Your task to perform on an android device: Add "bose soundsport free" to the cart on target Image 0: 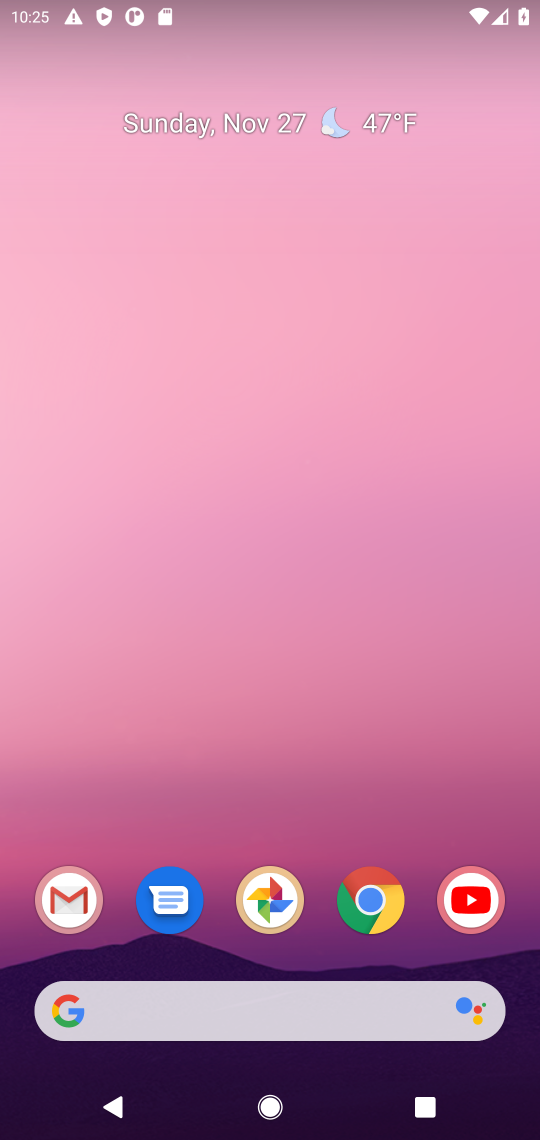
Step 0: click (379, 906)
Your task to perform on an android device: Add "bose soundsport free" to the cart on target Image 1: 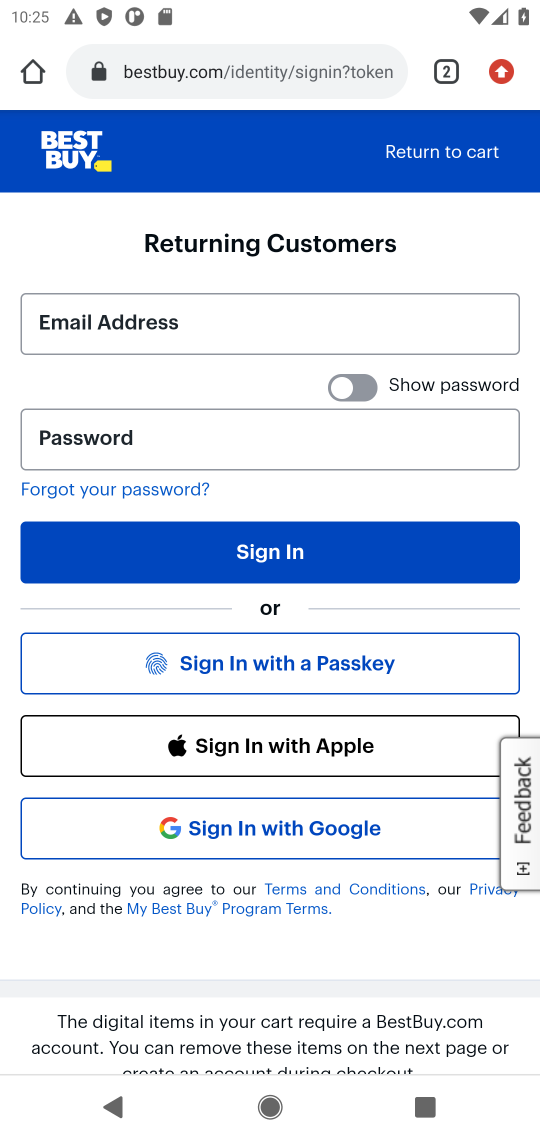
Step 1: click (218, 76)
Your task to perform on an android device: Add "bose soundsport free" to the cart on target Image 2: 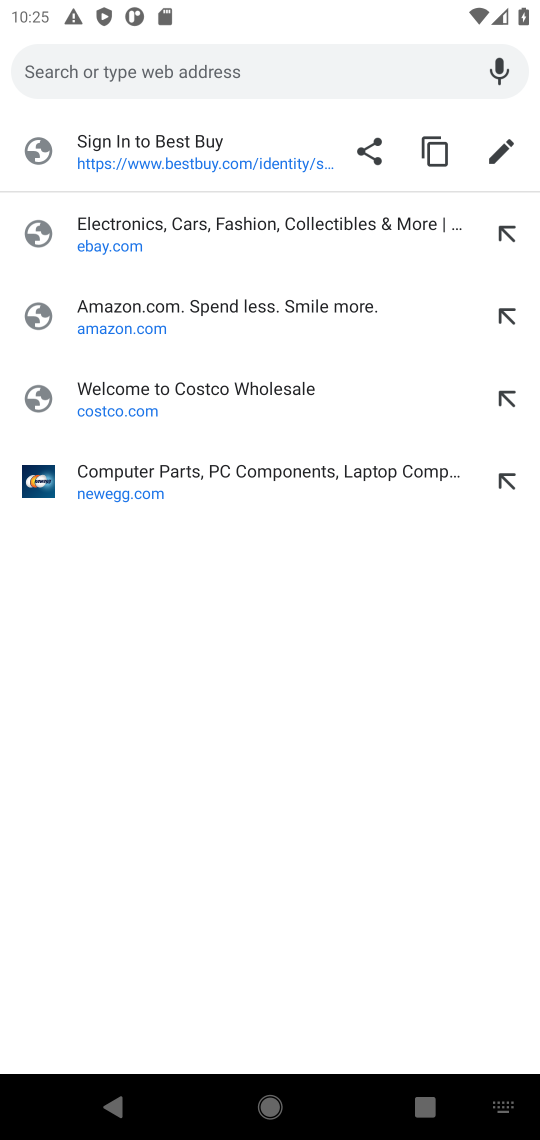
Step 2: type "target.com"
Your task to perform on an android device: Add "bose soundsport free" to the cart on target Image 3: 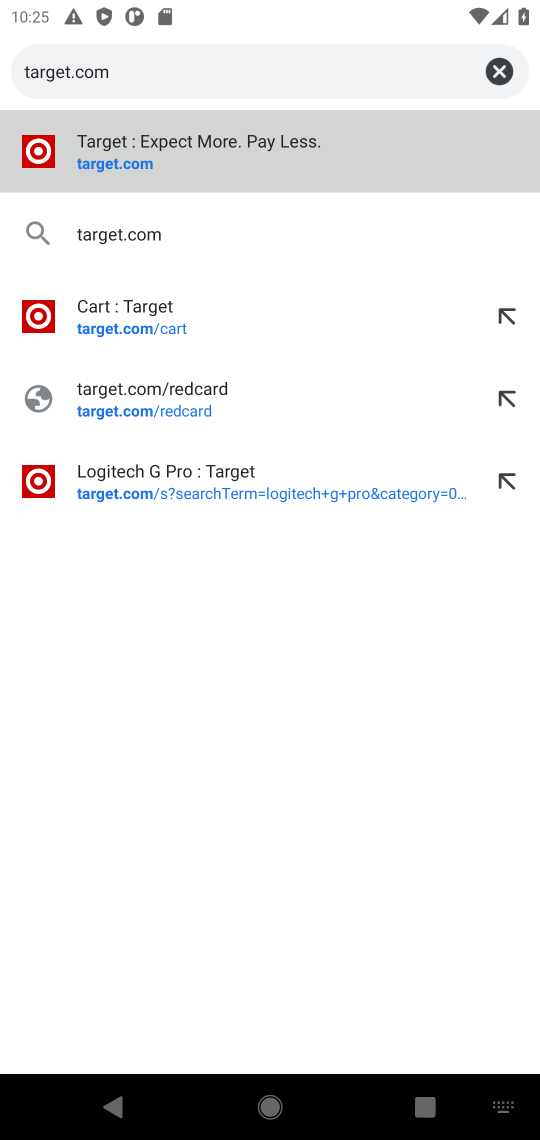
Step 3: click (82, 160)
Your task to perform on an android device: Add "bose soundsport free" to the cart on target Image 4: 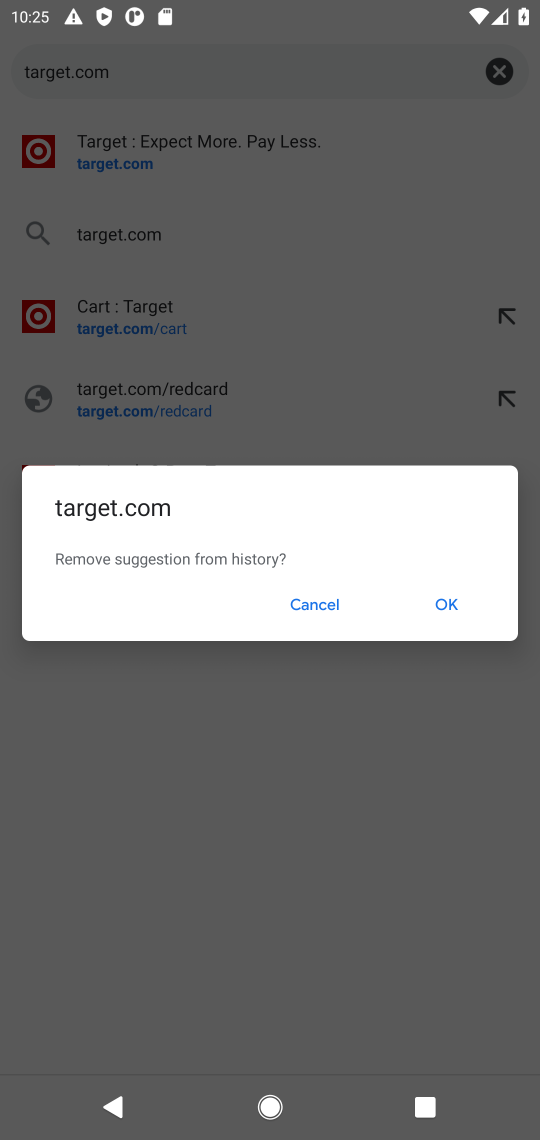
Step 4: click (306, 607)
Your task to perform on an android device: Add "bose soundsport free" to the cart on target Image 5: 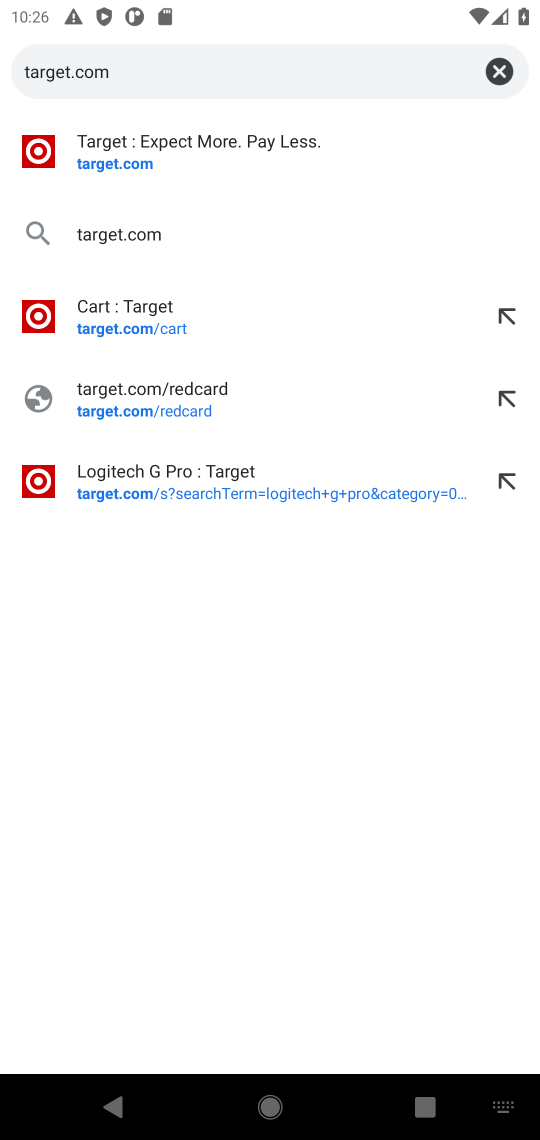
Step 5: click (111, 152)
Your task to perform on an android device: Add "bose soundsport free" to the cart on target Image 6: 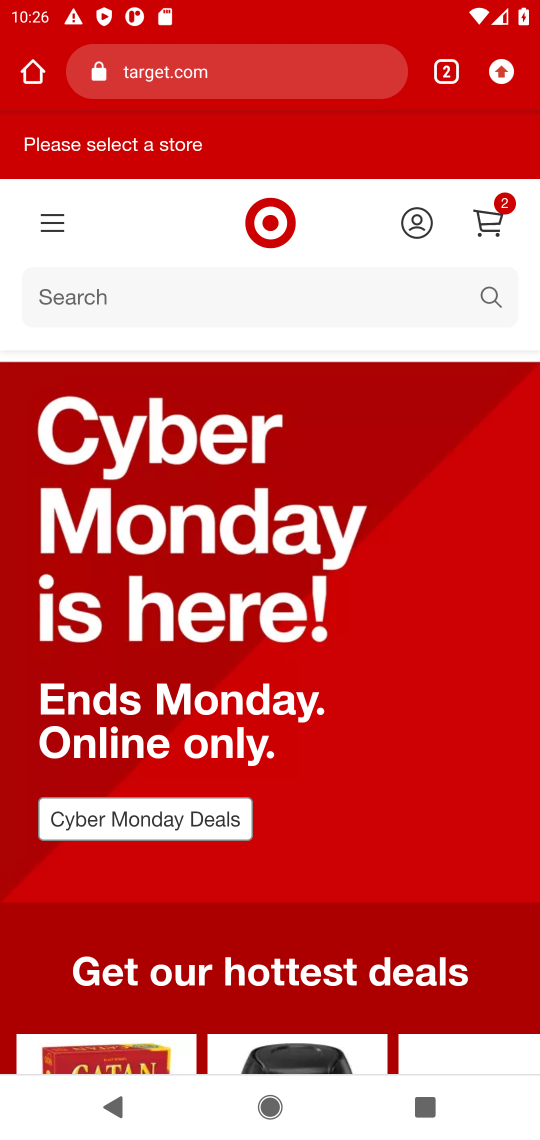
Step 6: click (484, 301)
Your task to perform on an android device: Add "bose soundsport free" to the cart on target Image 7: 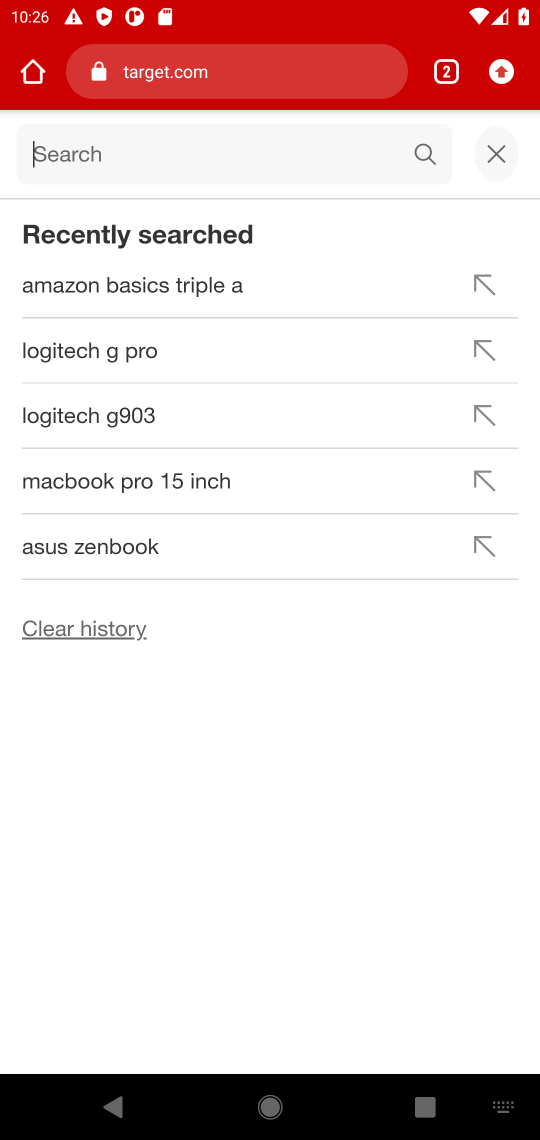
Step 7: type "bose soundsport free"
Your task to perform on an android device: Add "bose soundsport free" to the cart on target Image 8: 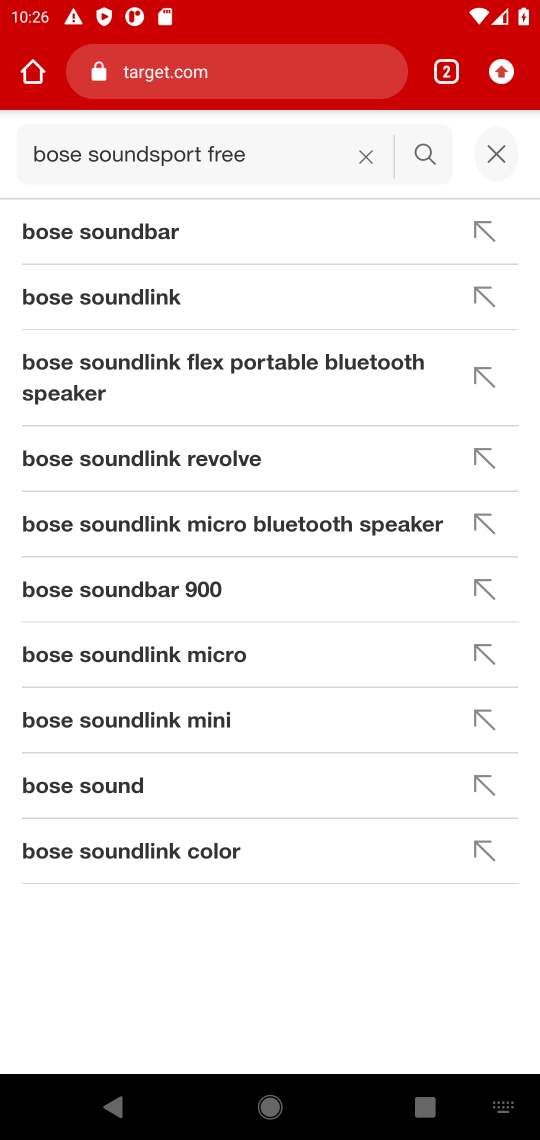
Step 8: click (420, 153)
Your task to perform on an android device: Add "bose soundsport free" to the cart on target Image 9: 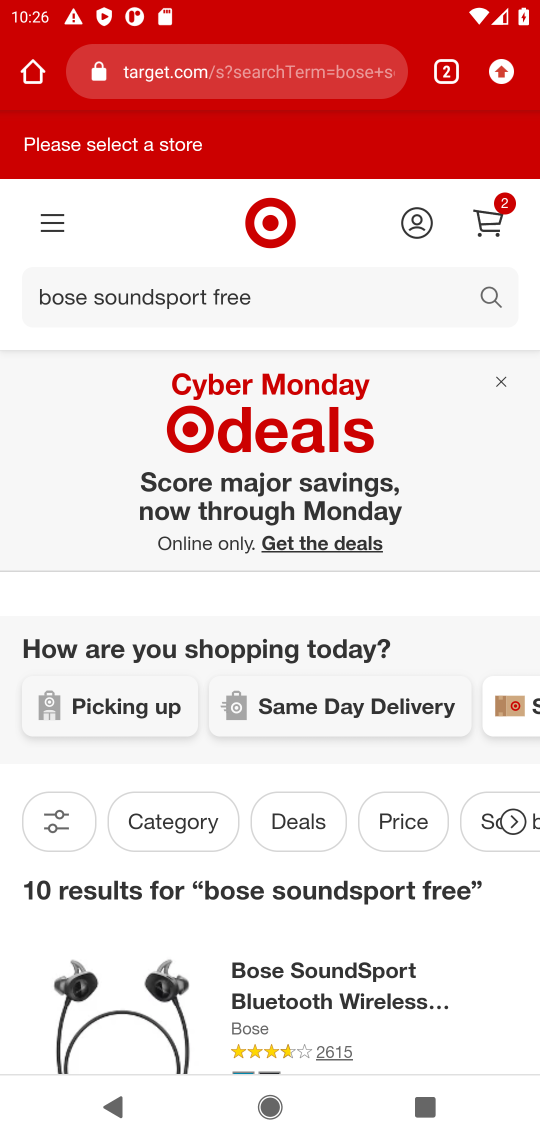
Step 9: task complete